Your task to perform on an android device: Search for vegetarian restaurants on Maps Image 0: 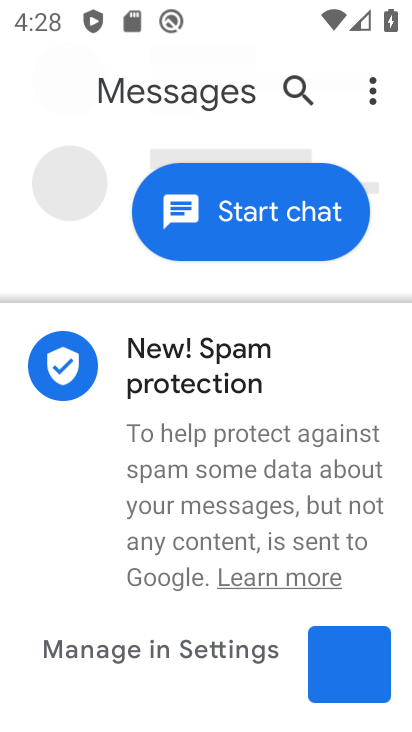
Step 0: press home button
Your task to perform on an android device: Search for vegetarian restaurants on Maps Image 1: 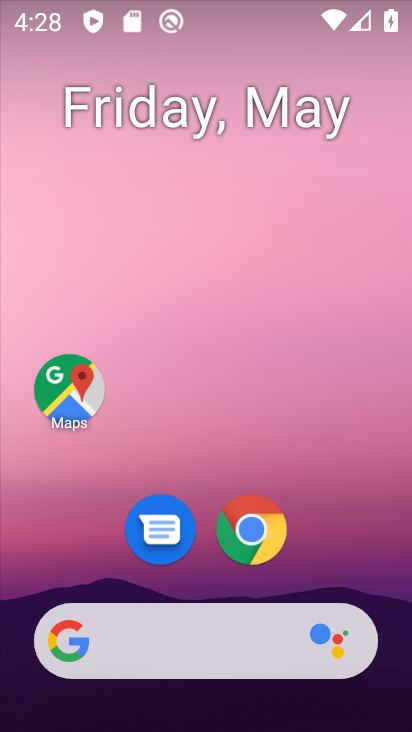
Step 1: click (58, 367)
Your task to perform on an android device: Search for vegetarian restaurants on Maps Image 2: 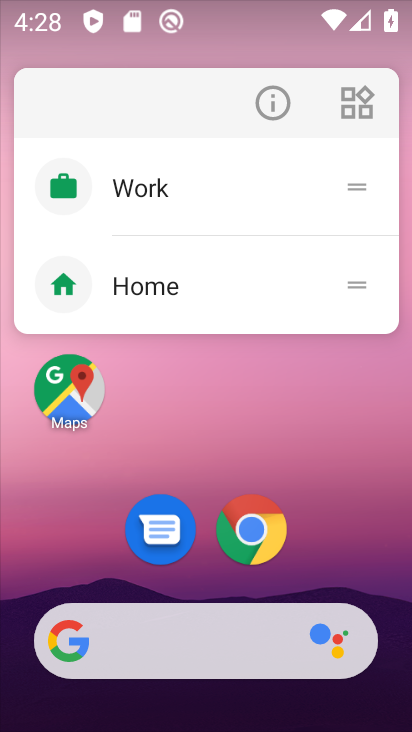
Step 2: click (62, 376)
Your task to perform on an android device: Search for vegetarian restaurants on Maps Image 3: 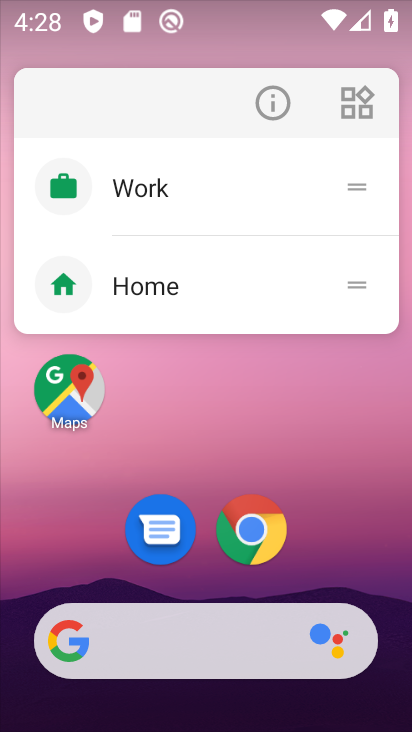
Step 3: click (73, 410)
Your task to perform on an android device: Search for vegetarian restaurants on Maps Image 4: 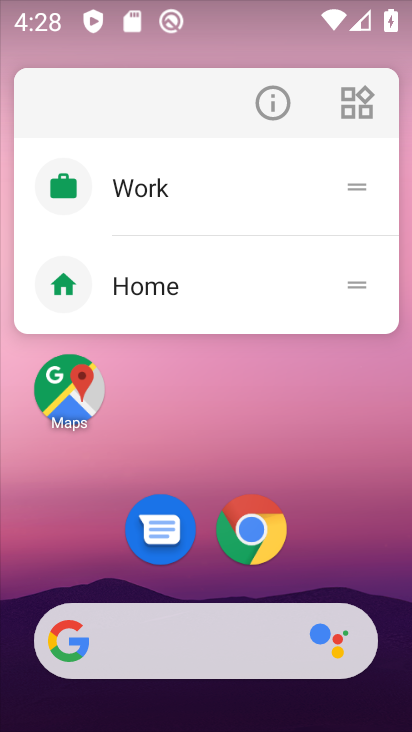
Step 4: click (81, 396)
Your task to perform on an android device: Search for vegetarian restaurants on Maps Image 5: 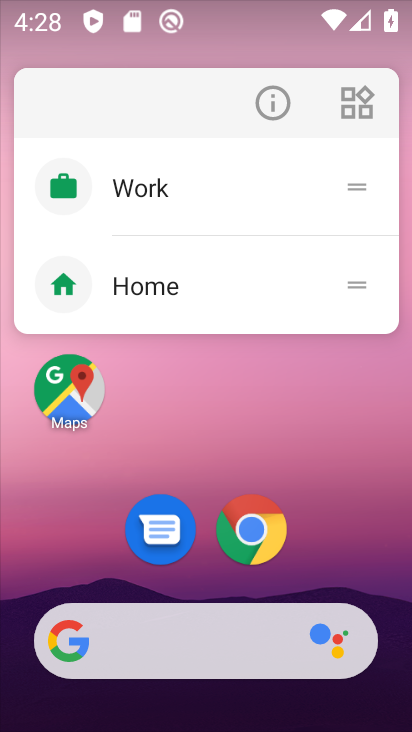
Step 5: click (73, 396)
Your task to perform on an android device: Search for vegetarian restaurants on Maps Image 6: 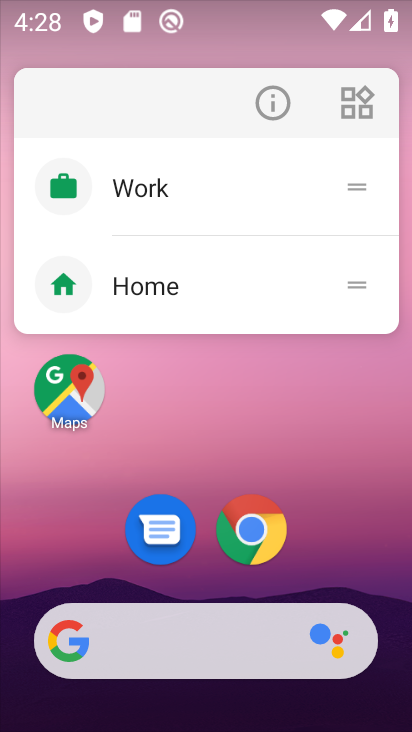
Step 6: click (79, 400)
Your task to perform on an android device: Search for vegetarian restaurants on Maps Image 7: 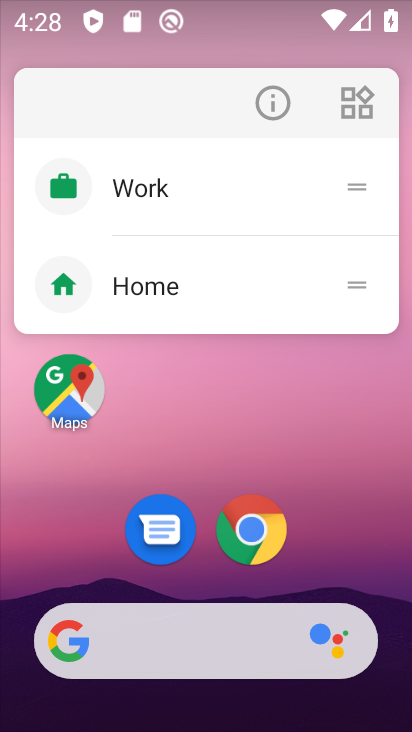
Step 7: click (81, 397)
Your task to perform on an android device: Search for vegetarian restaurants on Maps Image 8: 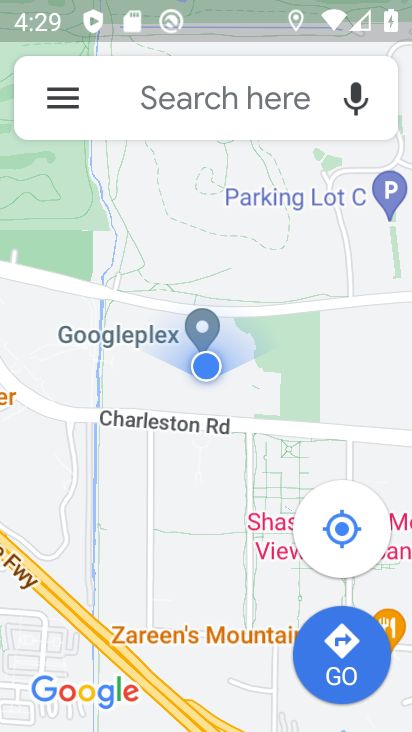
Step 8: click (183, 113)
Your task to perform on an android device: Search for vegetarian restaurants on Maps Image 9: 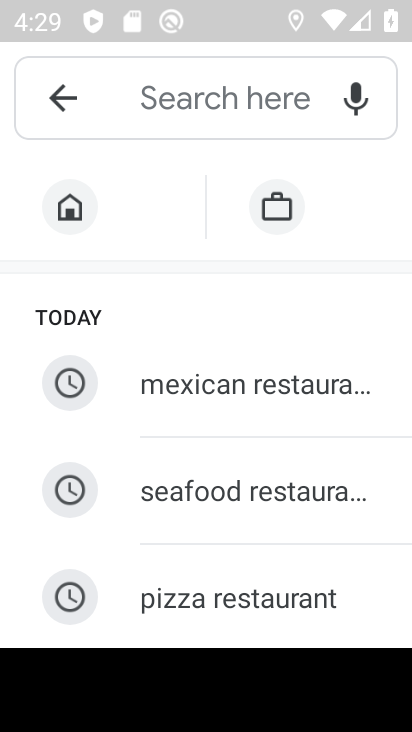
Step 9: type "vegetarian restaurants"
Your task to perform on an android device: Search for vegetarian restaurants on Maps Image 10: 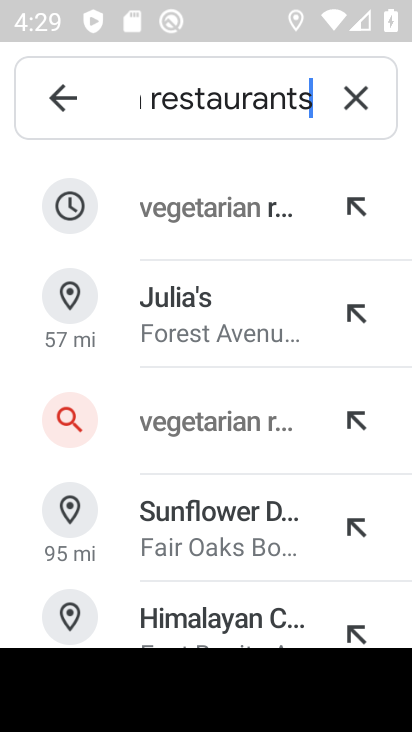
Step 10: click (222, 207)
Your task to perform on an android device: Search for vegetarian restaurants on Maps Image 11: 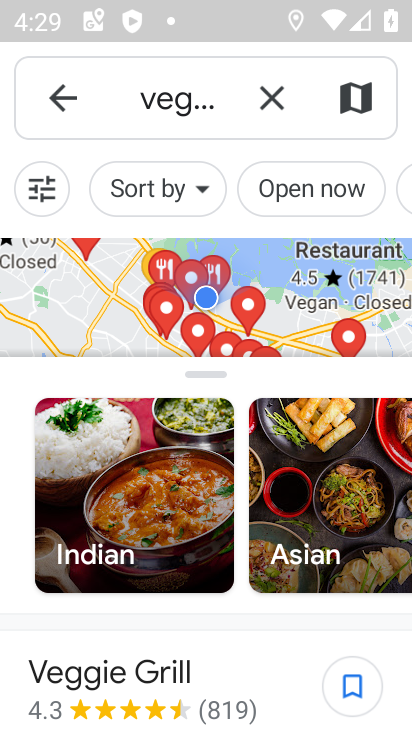
Step 11: task complete